Your task to perform on an android device: Do I have any events today? Image 0: 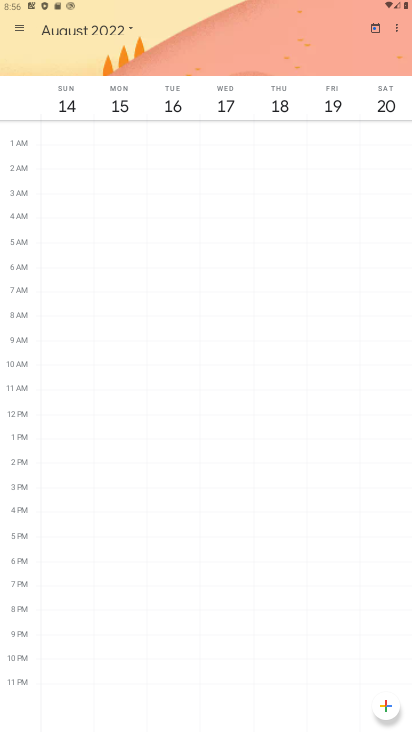
Step 0: press home button
Your task to perform on an android device: Do I have any events today? Image 1: 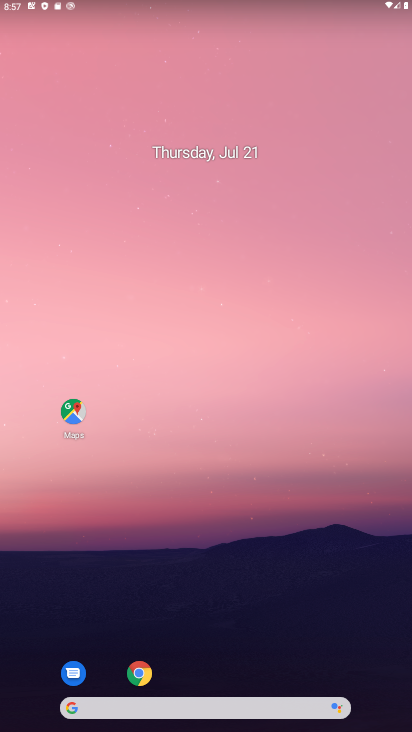
Step 1: drag from (369, 655) to (307, 151)
Your task to perform on an android device: Do I have any events today? Image 2: 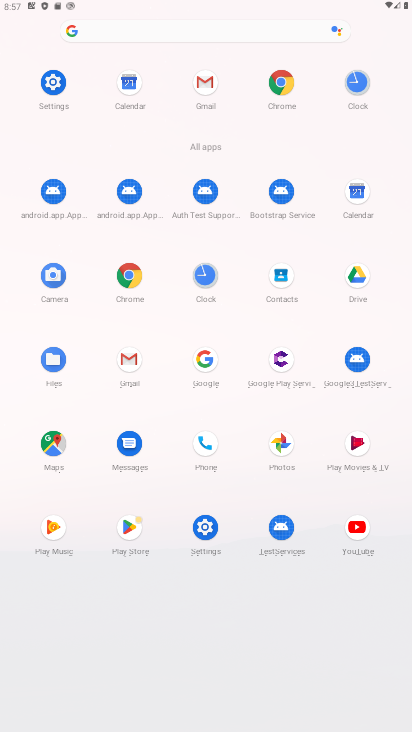
Step 2: press home button
Your task to perform on an android device: Do I have any events today? Image 3: 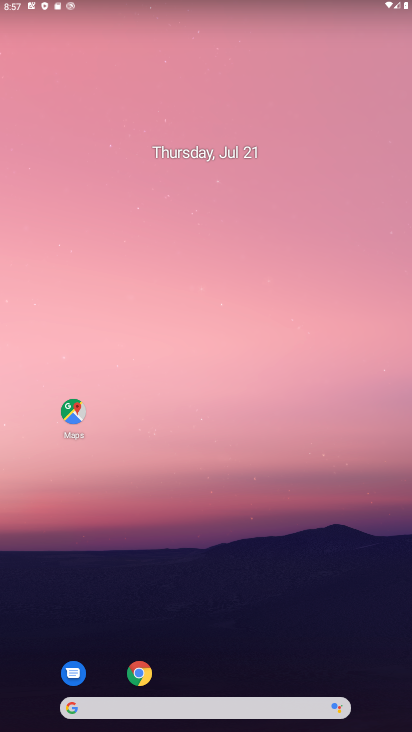
Step 3: drag from (299, 558) to (269, 152)
Your task to perform on an android device: Do I have any events today? Image 4: 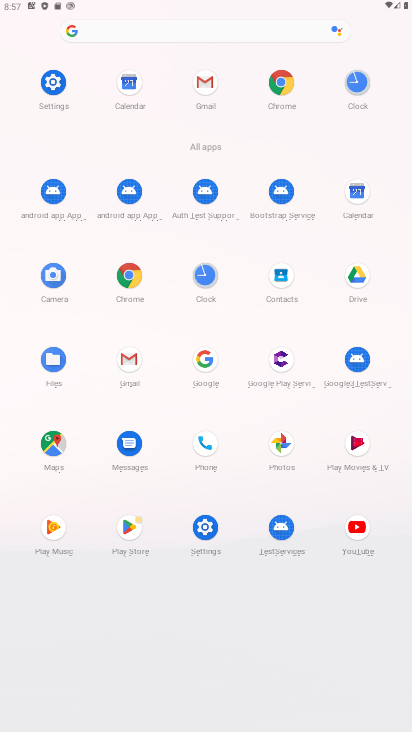
Step 4: click (352, 187)
Your task to perform on an android device: Do I have any events today? Image 5: 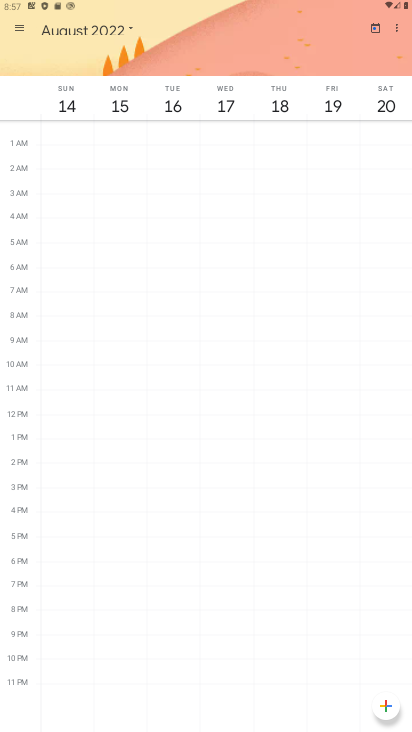
Step 5: click (19, 28)
Your task to perform on an android device: Do I have any events today? Image 6: 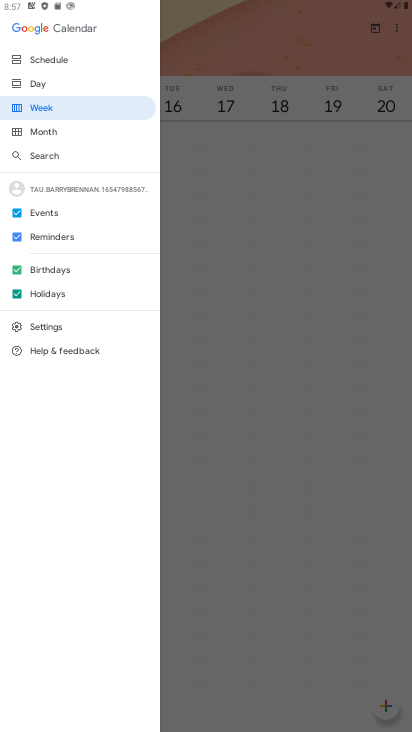
Step 6: click (69, 88)
Your task to perform on an android device: Do I have any events today? Image 7: 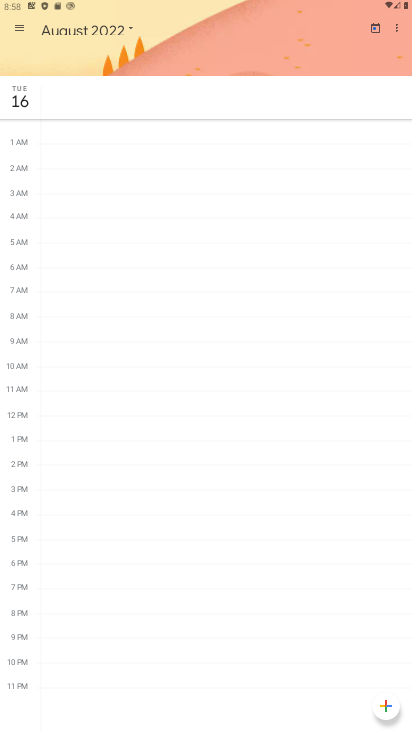
Step 7: click (120, 35)
Your task to perform on an android device: Do I have any events today? Image 8: 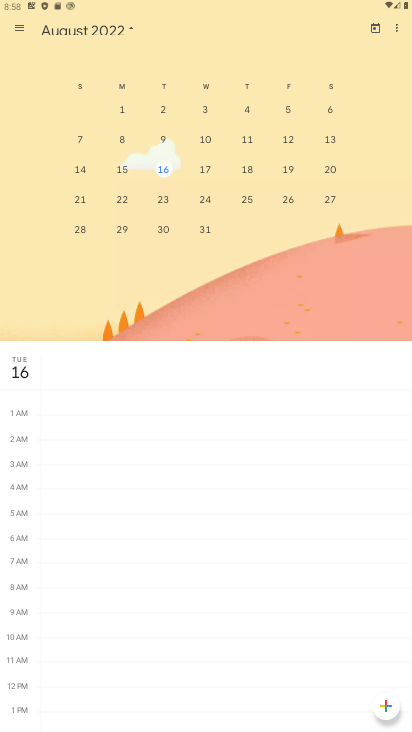
Step 8: drag from (175, 150) to (399, 168)
Your task to perform on an android device: Do I have any events today? Image 9: 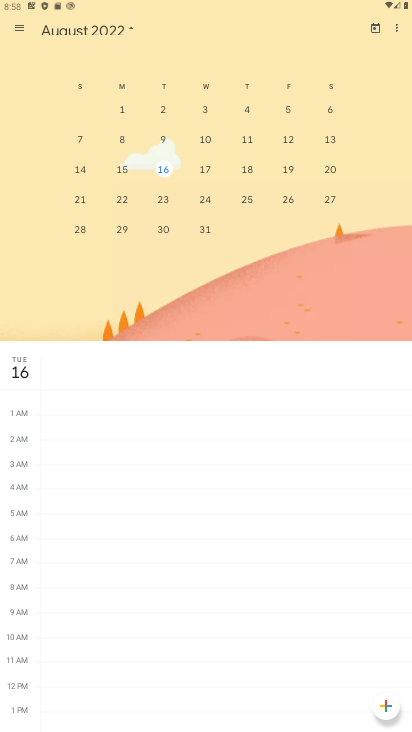
Step 9: drag from (84, 156) to (406, 113)
Your task to perform on an android device: Do I have any events today? Image 10: 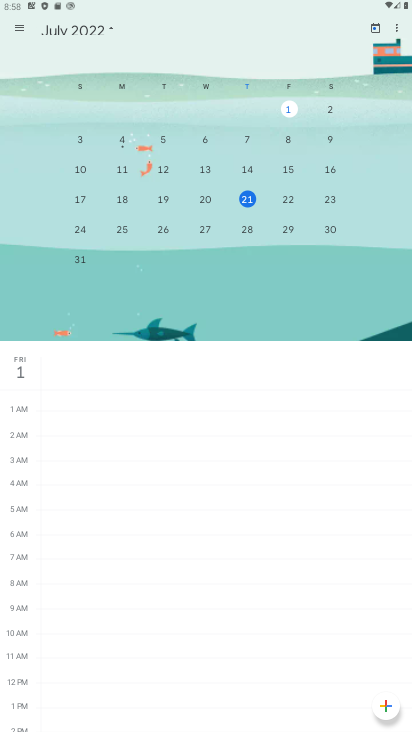
Step 10: click (244, 197)
Your task to perform on an android device: Do I have any events today? Image 11: 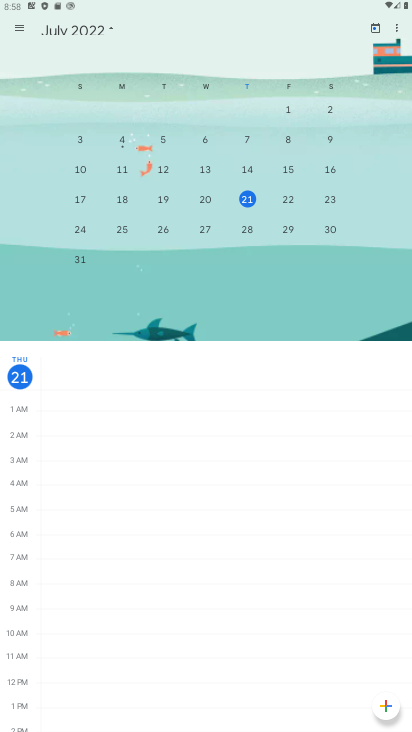
Step 11: task complete